Your task to perform on an android device: change the clock display to show seconds Image 0: 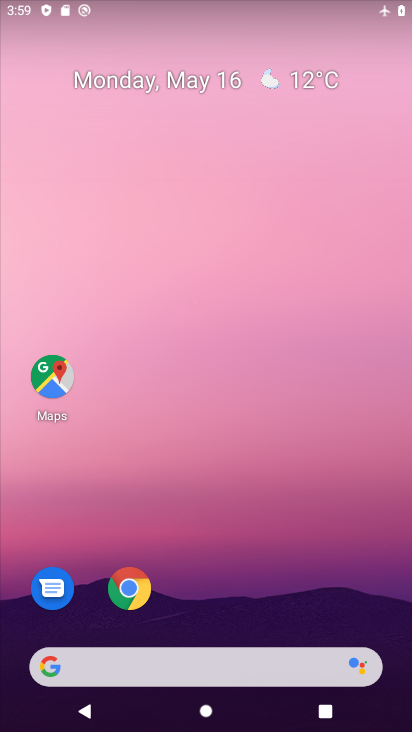
Step 0: drag from (234, 72) to (97, 11)
Your task to perform on an android device: change the clock display to show seconds Image 1: 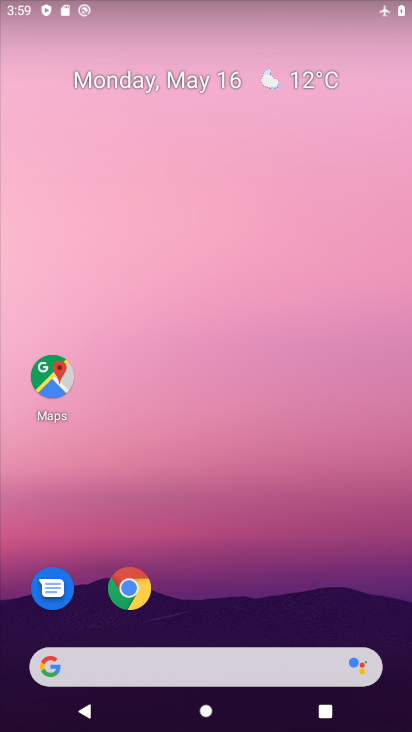
Step 1: drag from (326, 552) to (319, 27)
Your task to perform on an android device: change the clock display to show seconds Image 2: 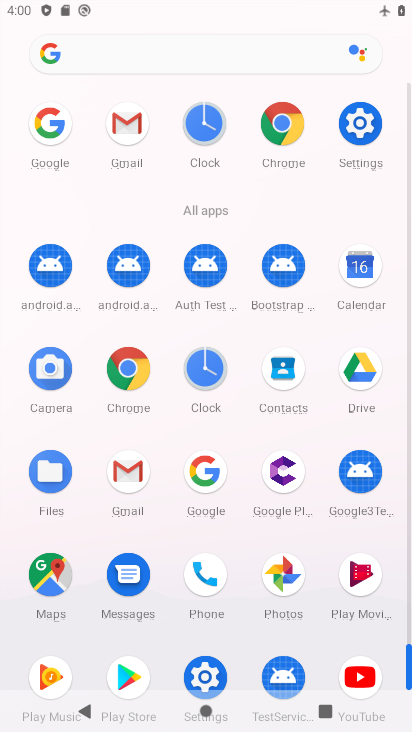
Step 2: click (360, 132)
Your task to perform on an android device: change the clock display to show seconds Image 3: 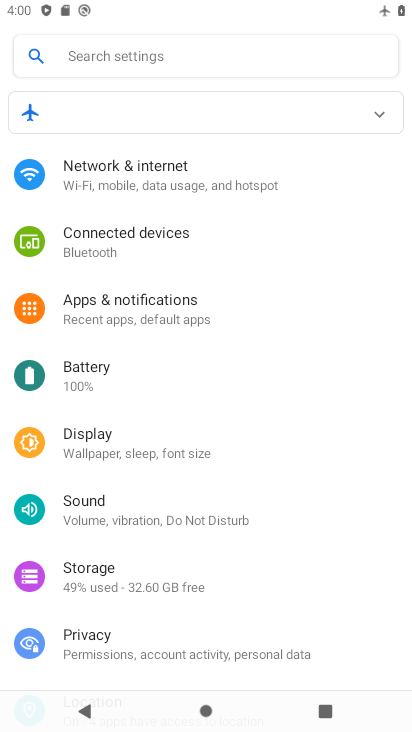
Step 3: press back button
Your task to perform on an android device: change the clock display to show seconds Image 4: 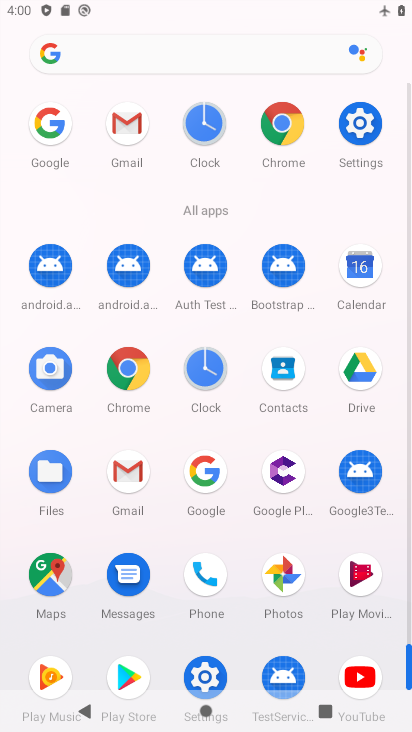
Step 4: click (211, 129)
Your task to perform on an android device: change the clock display to show seconds Image 5: 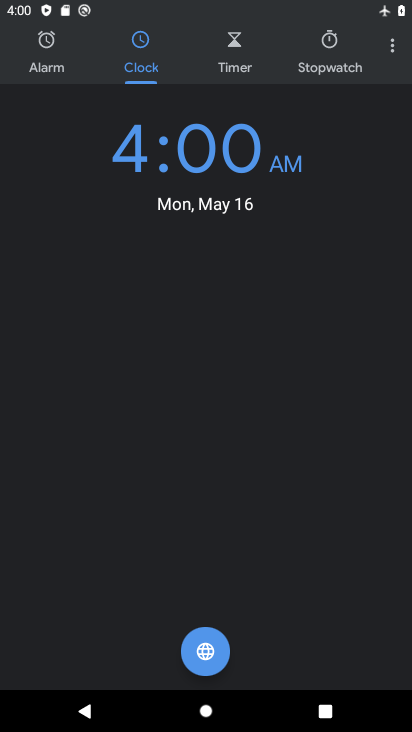
Step 5: click (381, 39)
Your task to perform on an android device: change the clock display to show seconds Image 6: 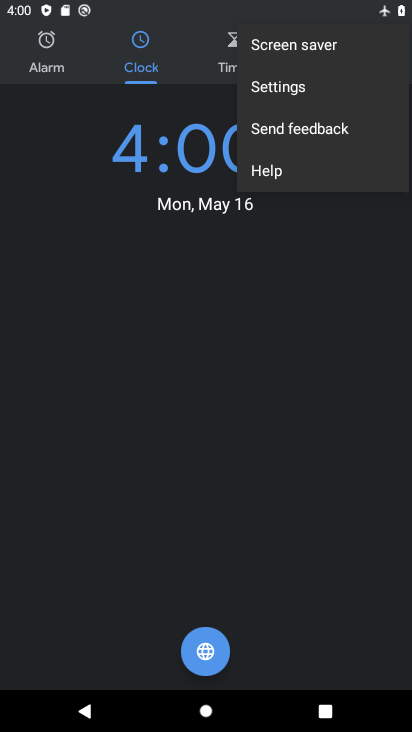
Step 6: click (274, 94)
Your task to perform on an android device: change the clock display to show seconds Image 7: 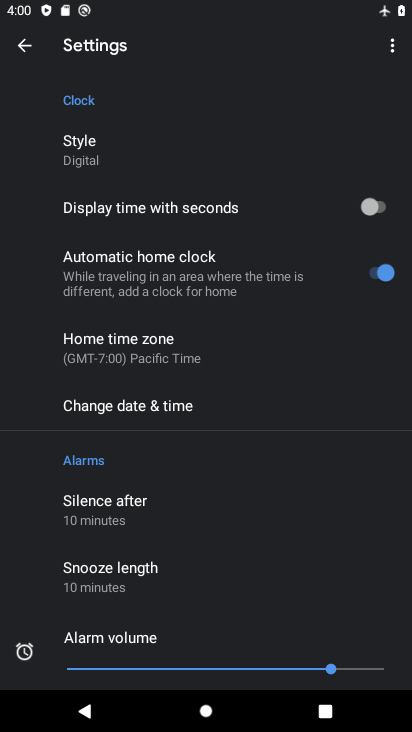
Step 7: click (223, 402)
Your task to perform on an android device: change the clock display to show seconds Image 8: 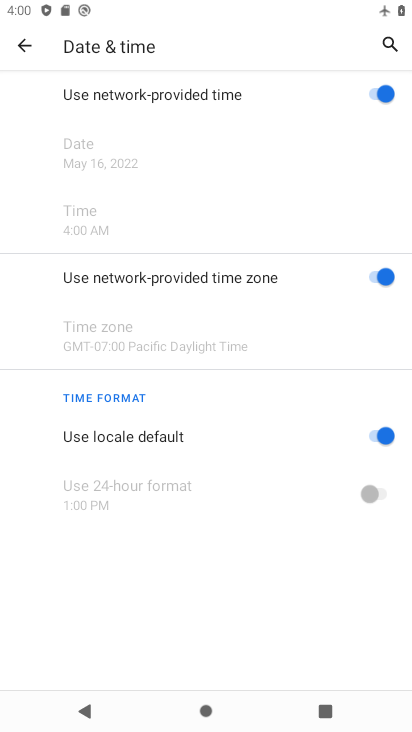
Step 8: task complete